Your task to perform on an android device: What's the weather like in Singapore? Image 0: 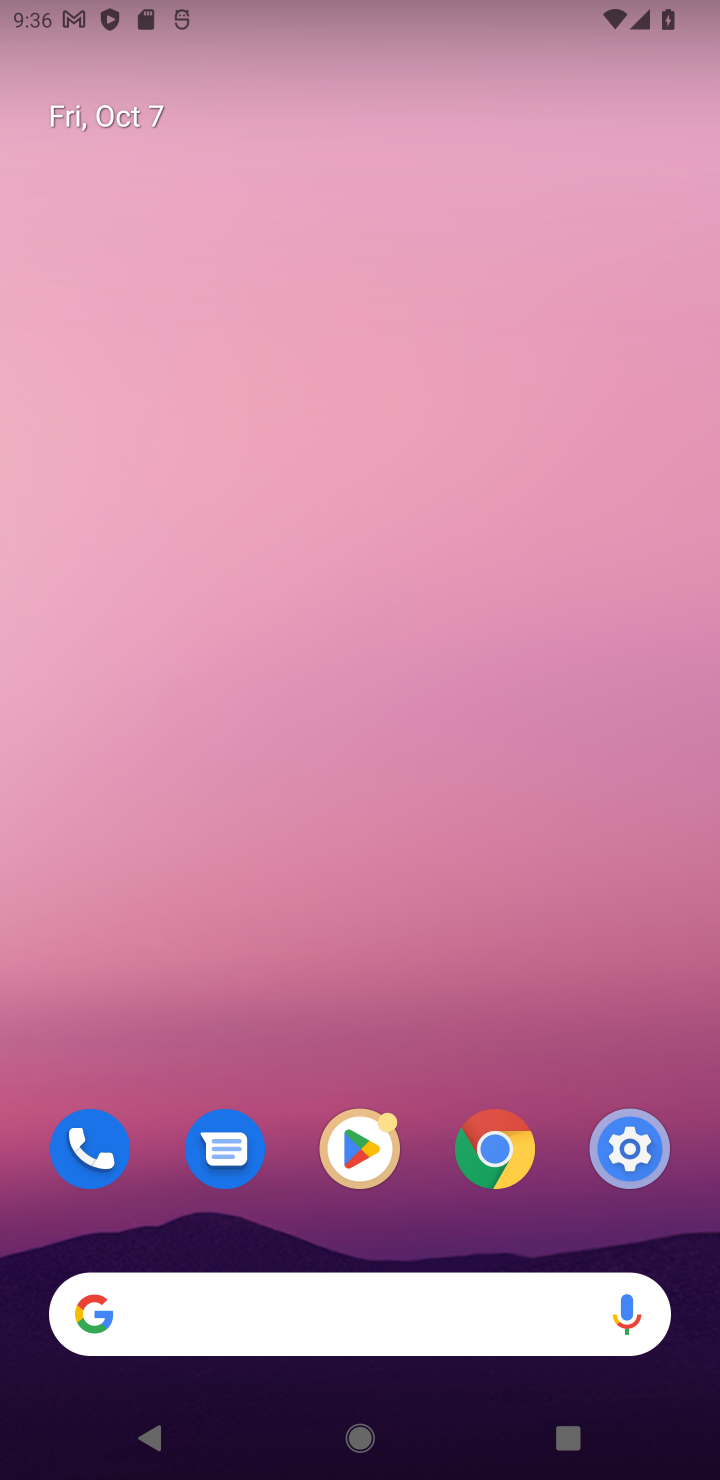
Step 0: click (398, 923)
Your task to perform on an android device: What's the weather like in Singapore? Image 1: 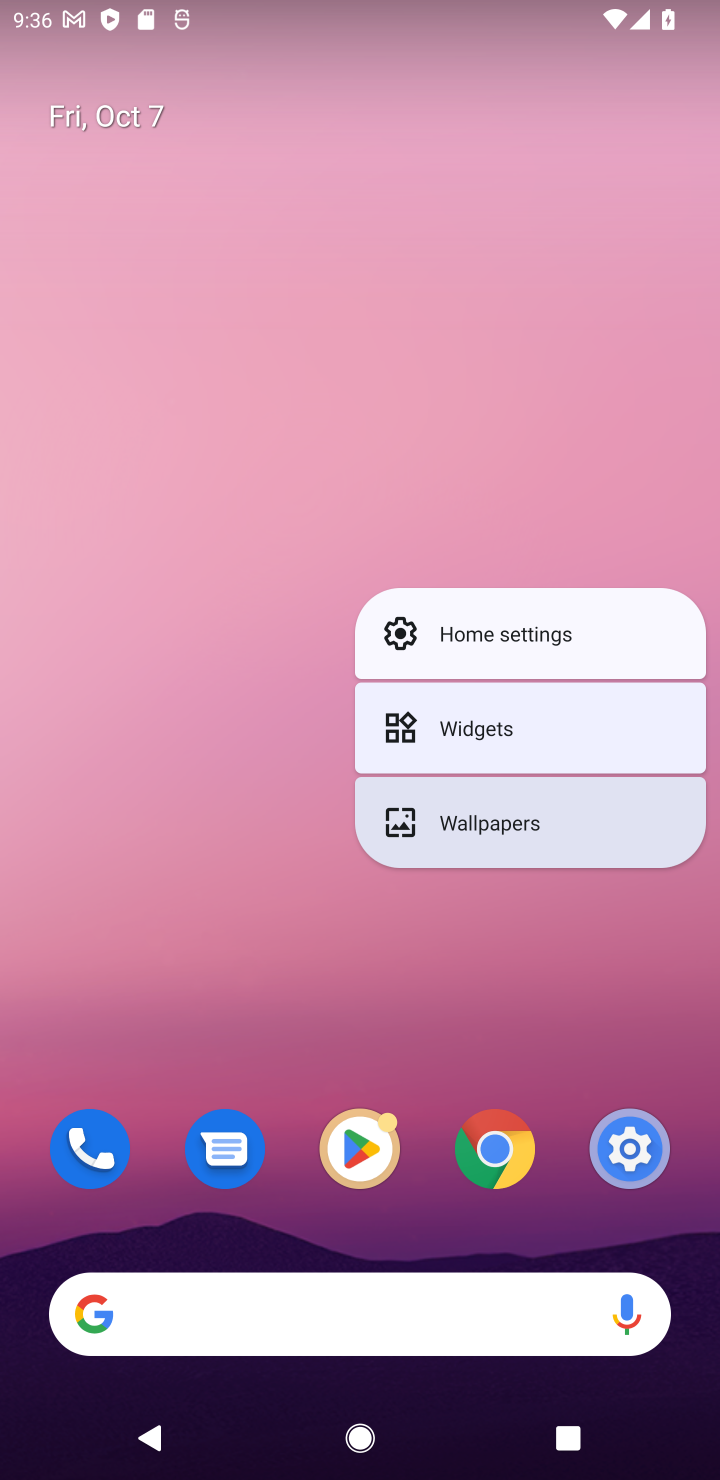
Step 1: drag from (398, 923) to (119, 1238)
Your task to perform on an android device: What's the weather like in Singapore? Image 2: 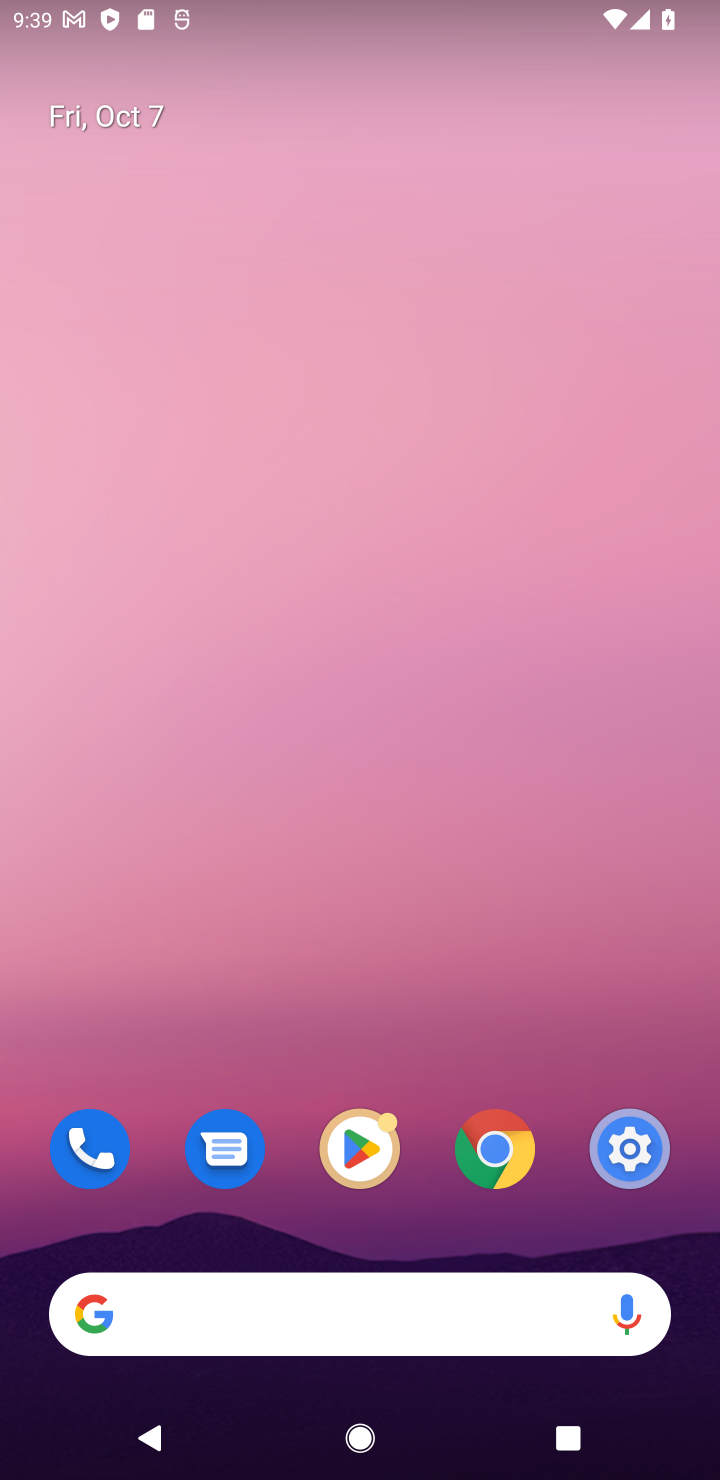
Step 2: click (362, 1307)
Your task to perform on an android device: What's the weather like in Singapore? Image 3: 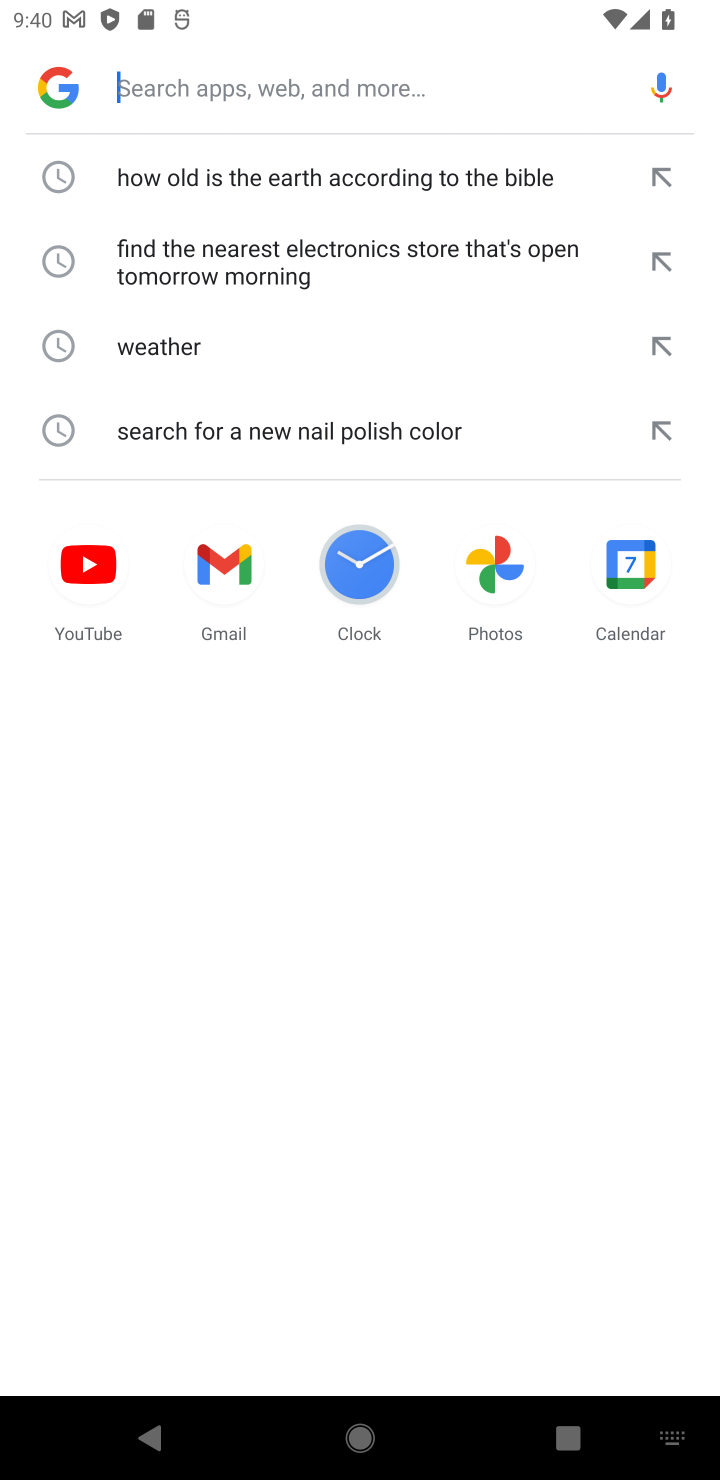
Step 3: type "weather in europe"
Your task to perform on an android device: What's the weather like in Singapore? Image 4: 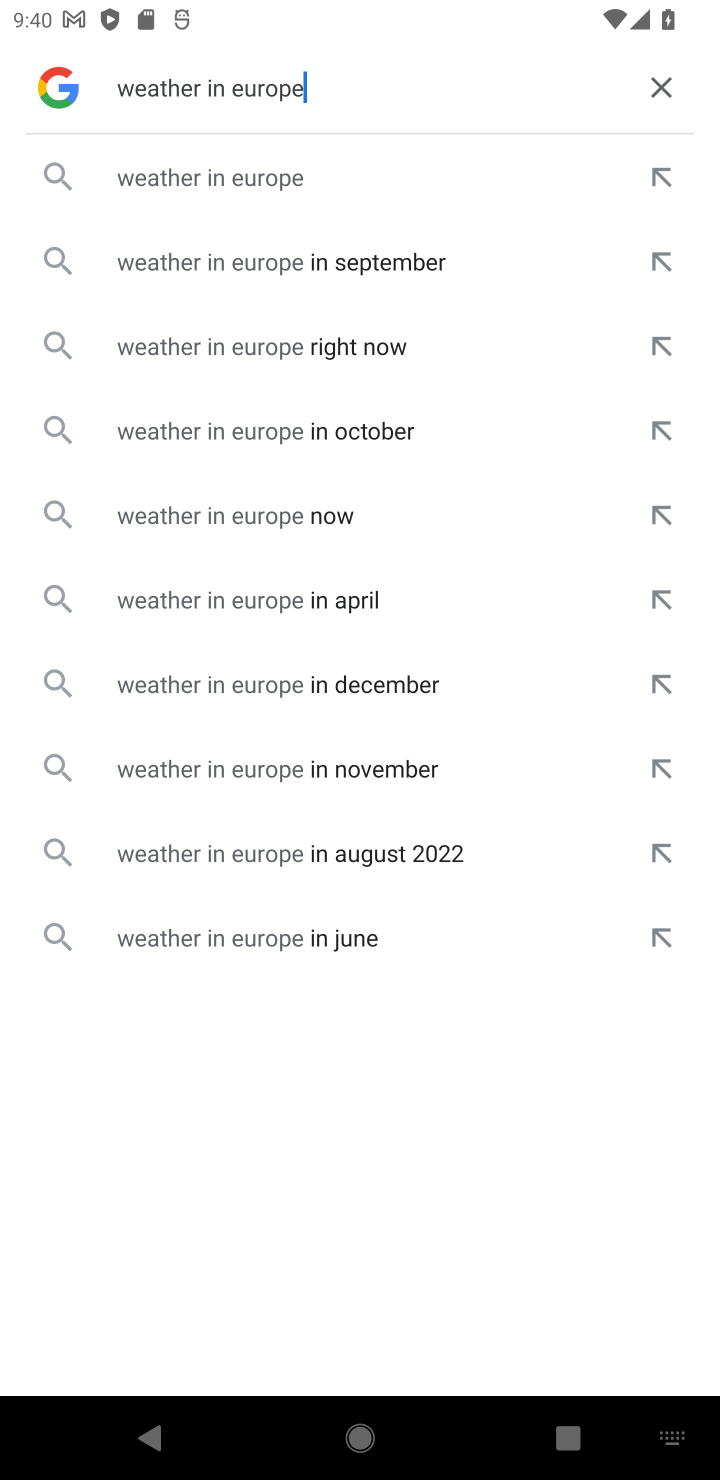
Step 4: click (332, 158)
Your task to perform on an android device: What's the weather like in Singapore? Image 5: 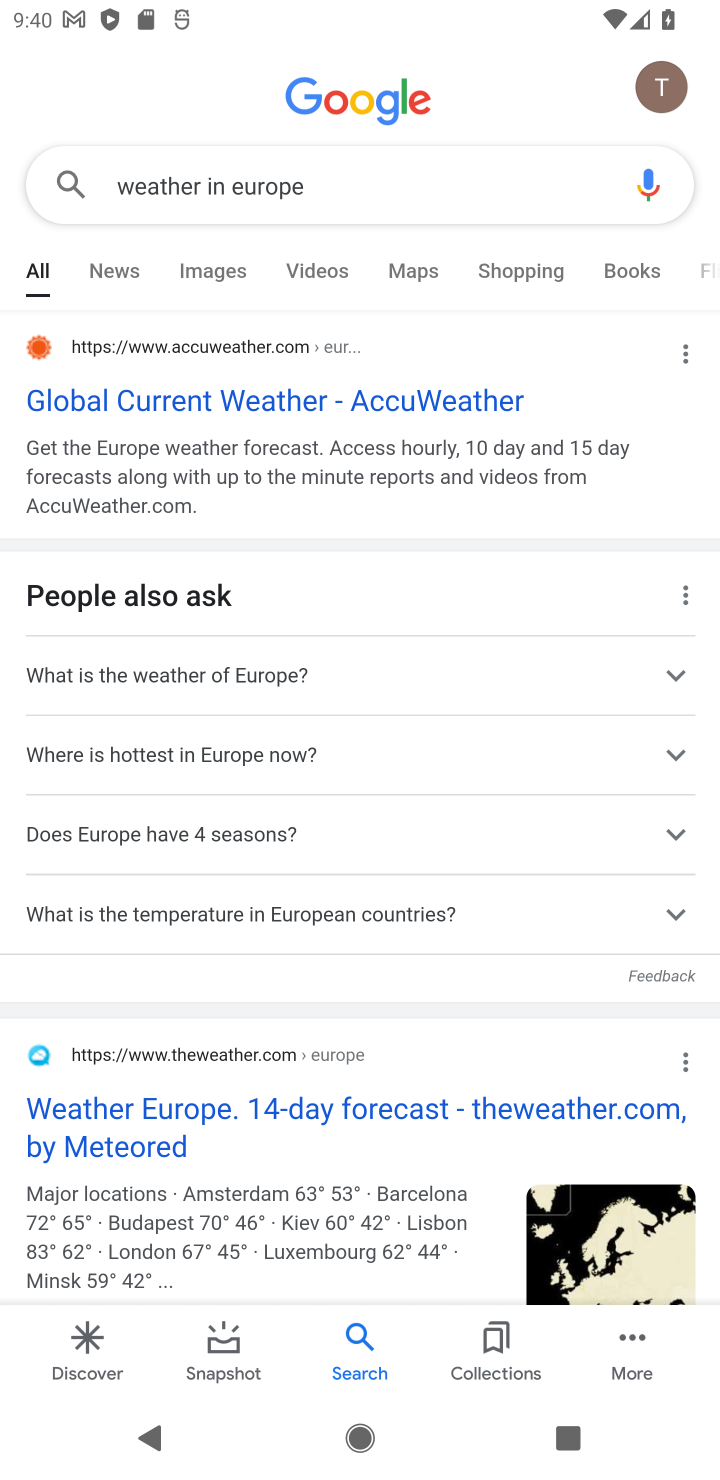
Step 5: click (348, 383)
Your task to perform on an android device: What's the weather like in Singapore? Image 6: 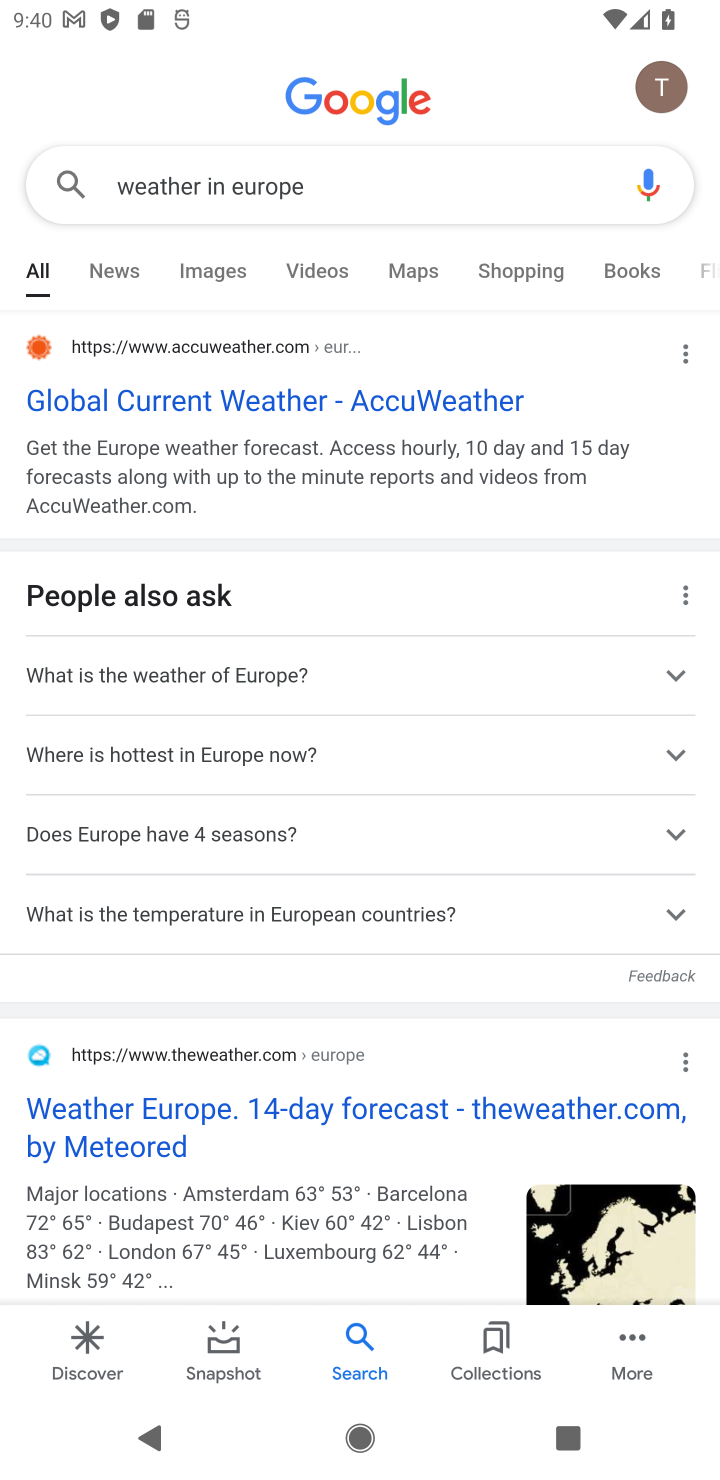
Step 6: task complete